Your task to perform on an android device: Is it going to rain tomorrow? Image 0: 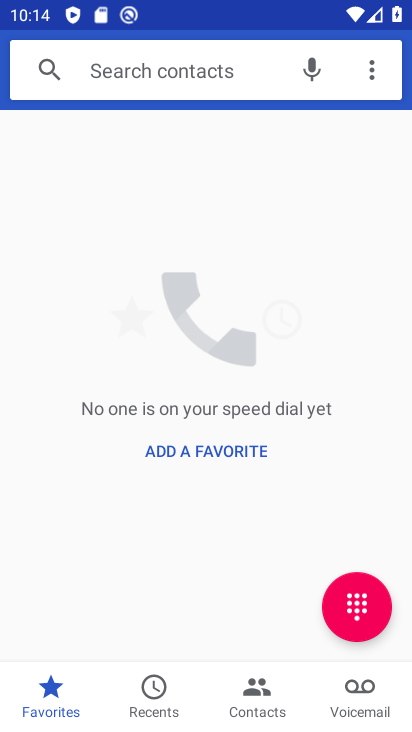
Step 0: press home button
Your task to perform on an android device: Is it going to rain tomorrow? Image 1: 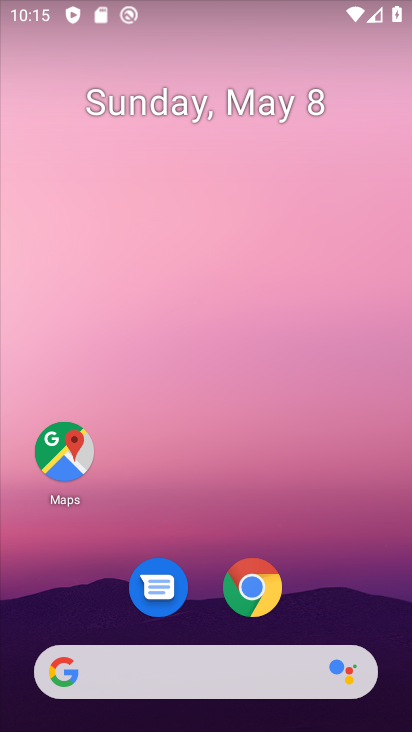
Step 1: drag from (1, 216) to (393, 526)
Your task to perform on an android device: Is it going to rain tomorrow? Image 2: 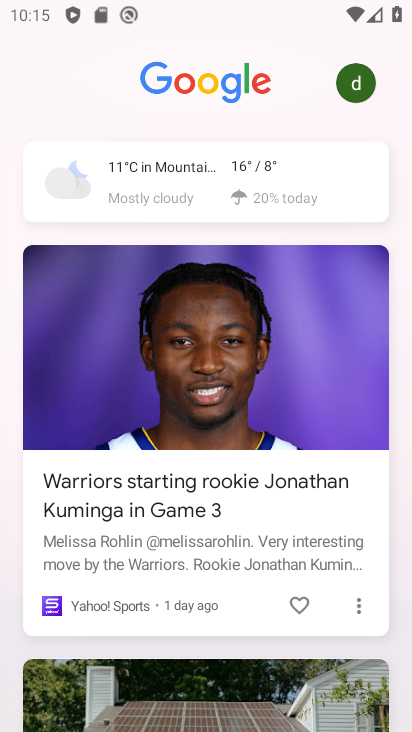
Step 2: click (169, 176)
Your task to perform on an android device: Is it going to rain tomorrow? Image 3: 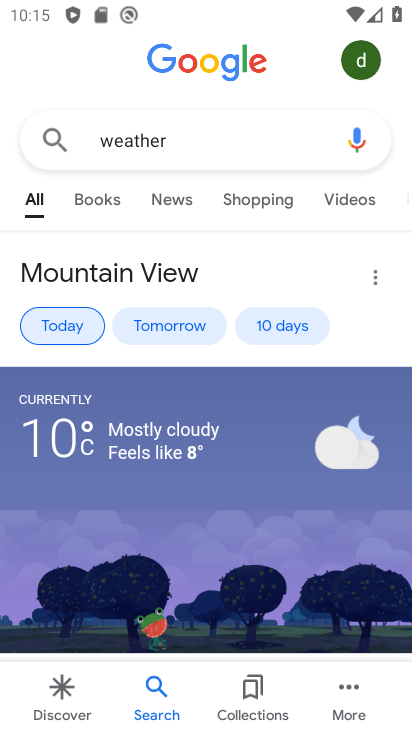
Step 3: task complete